Your task to perform on an android device: Go to accessibility settings Image 0: 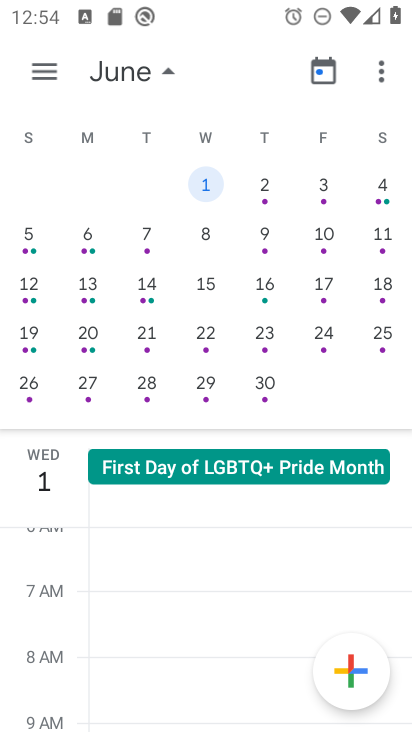
Step 0: press home button
Your task to perform on an android device: Go to accessibility settings Image 1: 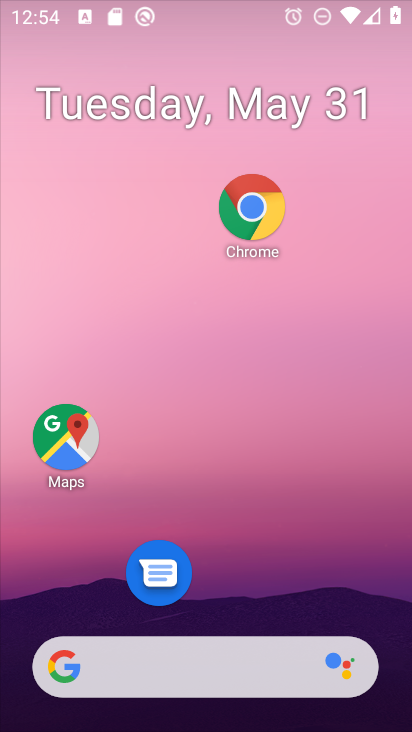
Step 1: drag from (270, 515) to (252, 0)
Your task to perform on an android device: Go to accessibility settings Image 2: 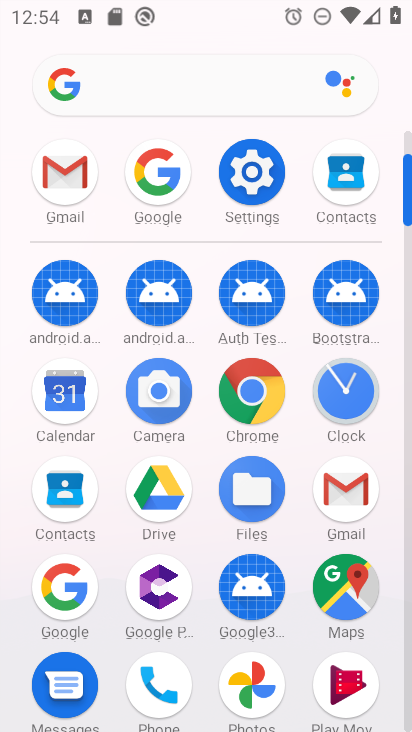
Step 2: click (252, 216)
Your task to perform on an android device: Go to accessibility settings Image 3: 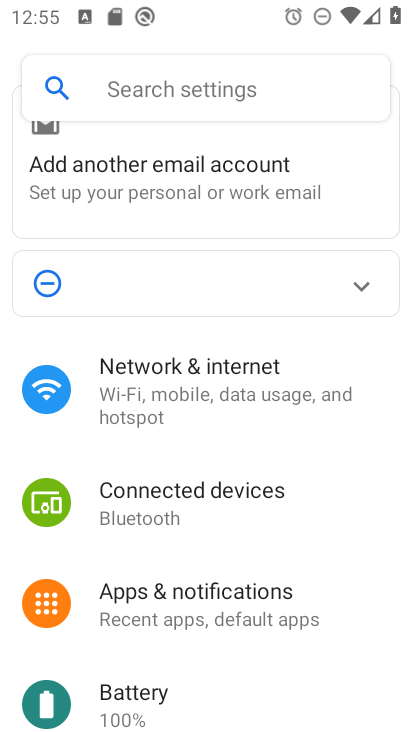
Step 3: drag from (212, 618) to (204, 143)
Your task to perform on an android device: Go to accessibility settings Image 4: 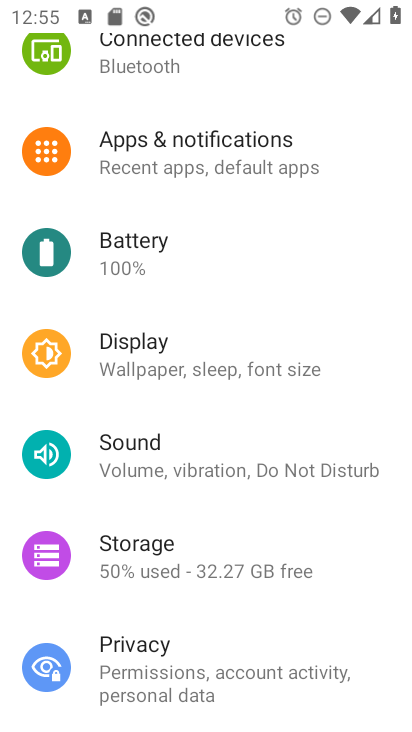
Step 4: drag from (102, 490) to (116, 156)
Your task to perform on an android device: Go to accessibility settings Image 5: 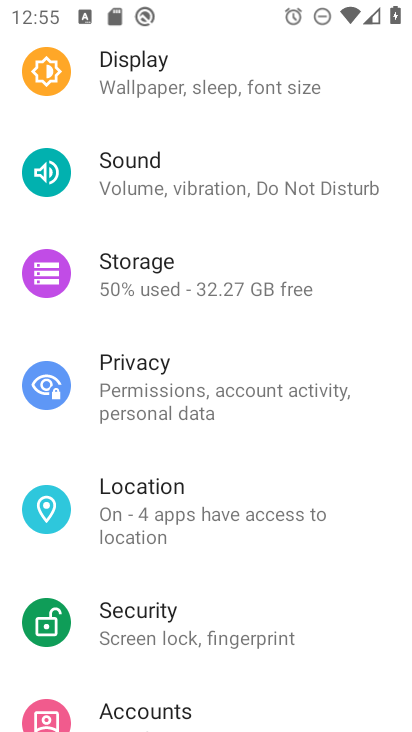
Step 5: drag from (177, 603) to (191, 74)
Your task to perform on an android device: Go to accessibility settings Image 6: 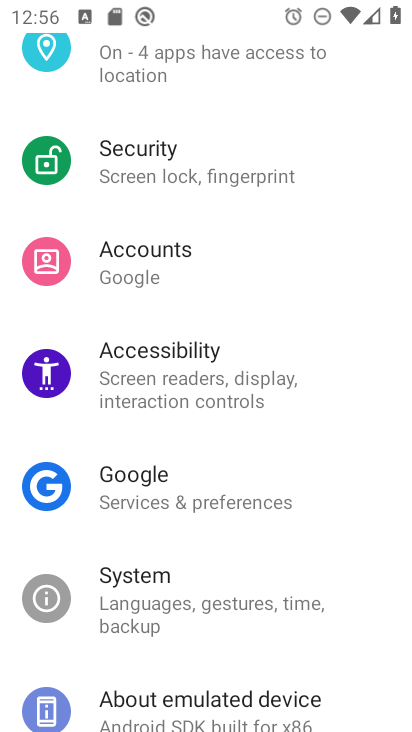
Step 6: click (239, 356)
Your task to perform on an android device: Go to accessibility settings Image 7: 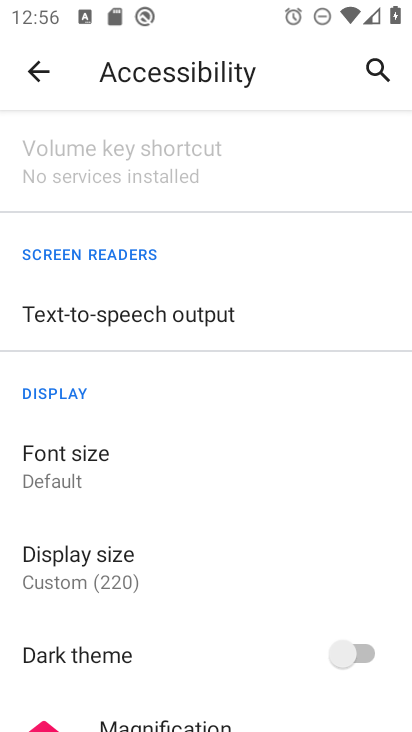
Step 7: task complete